Your task to perform on an android device: Open calendar and show me the second week of next month Image 0: 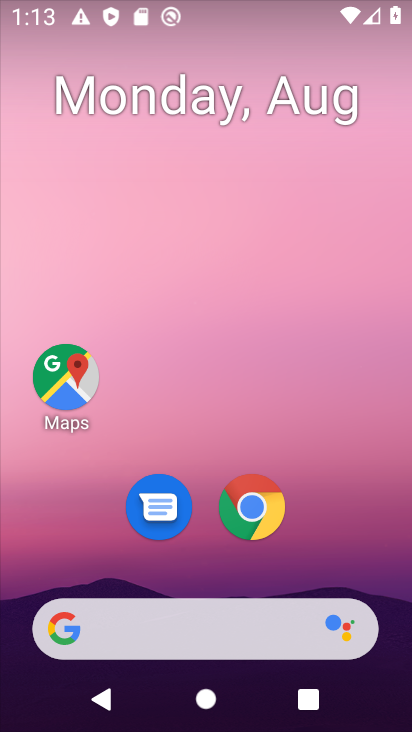
Step 0: press home button
Your task to perform on an android device: Open calendar and show me the second week of next month Image 1: 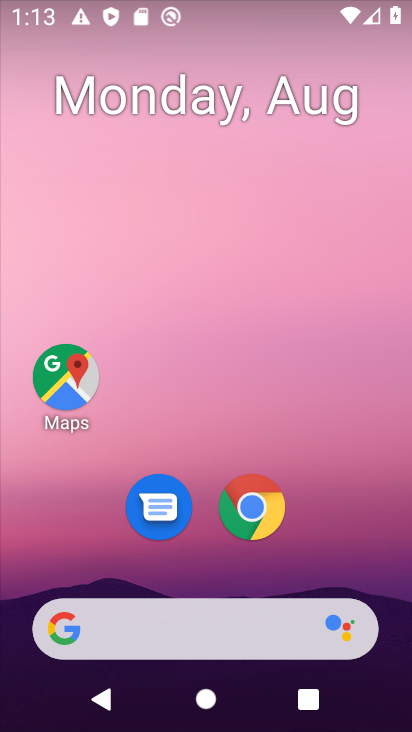
Step 1: drag from (224, 569) to (245, 54)
Your task to perform on an android device: Open calendar and show me the second week of next month Image 2: 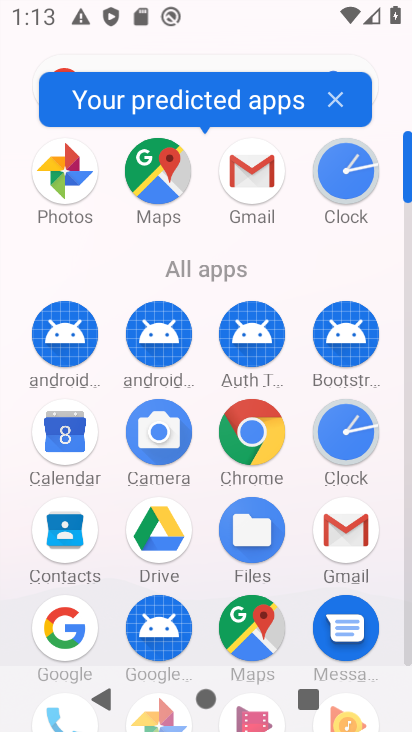
Step 2: click (44, 430)
Your task to perform on an android device: Open calendar and show me the second week of next month Image 3: 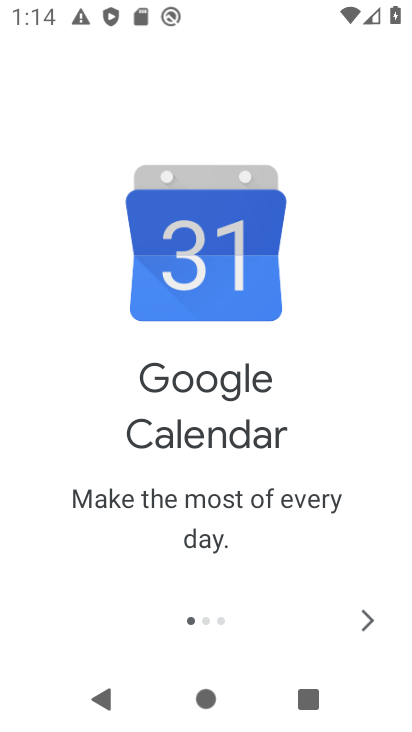
Step 3: click (366, 623)
Your task to perform on an android device: Open calendar and show me the second week of next month Image 4: 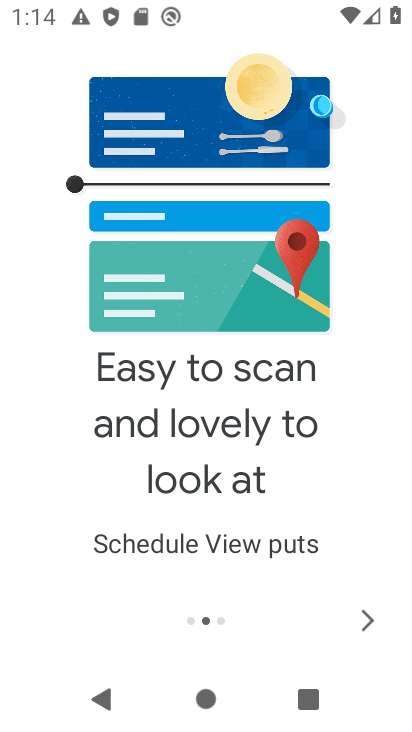
Step 4: click (362, 612)
Your task to perform on an android device: Open calendar and show me the second week of next month Image 5: 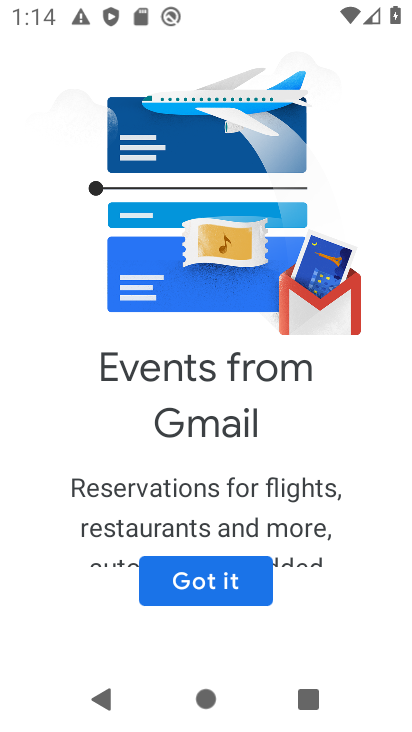
Step 5: click (218, 583)
Your task to perform on an android device: Open calendar and show me the second week of next month Image 6: 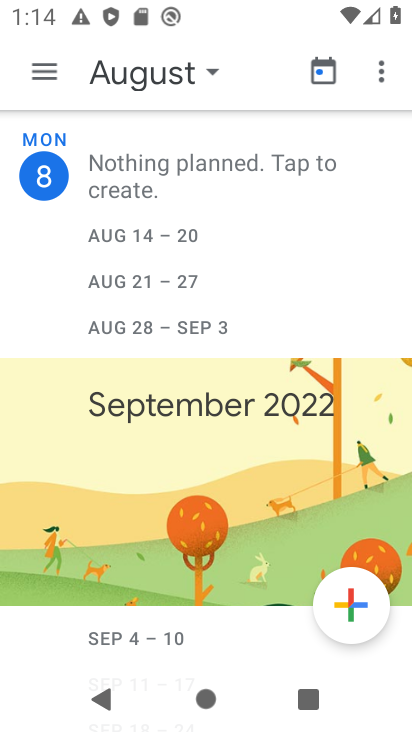
Step 6: click (219, 72)
Your task to perform on an android device: Open calendar and show me the second week of next month Image 7: 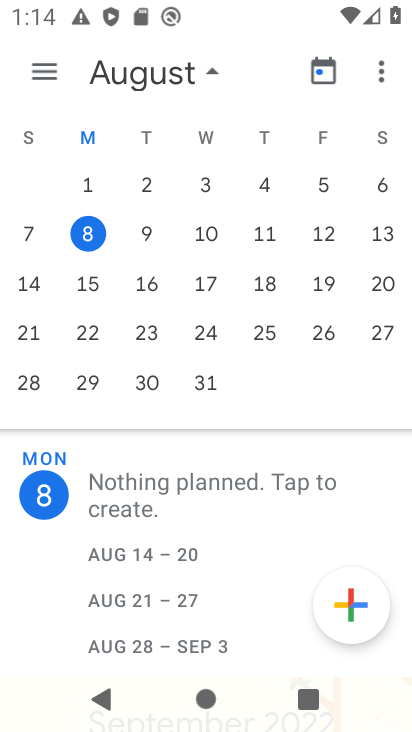
Step 7: drag from (383, 250) to (0, 278)
Your task to perform on an android device: Open calendar and show me the second week of next month Image 8: 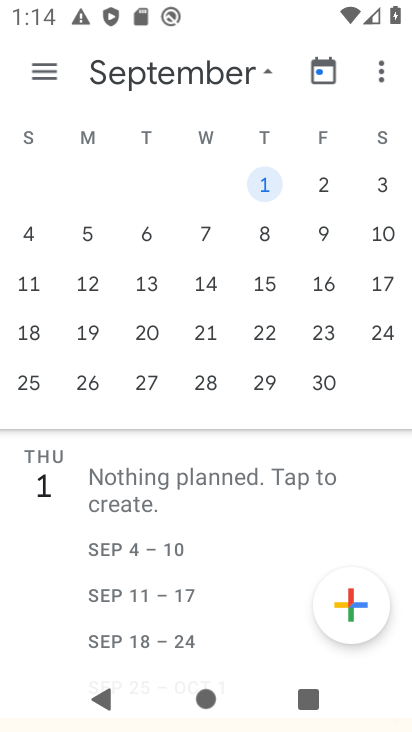
Step 8: click (24, 286)
Your task to perform on an android device: Open calendar and show me the second week of next month Image 9: 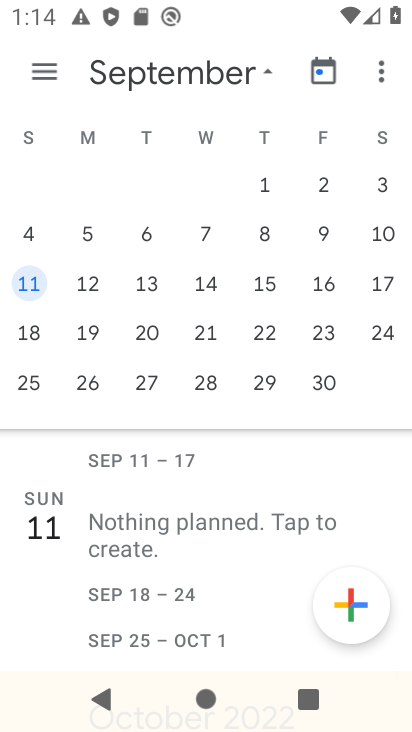
Step 9: click (51, 76)
Your task to perform on an android device: Open calendar and show me the second week of next month Image 10: 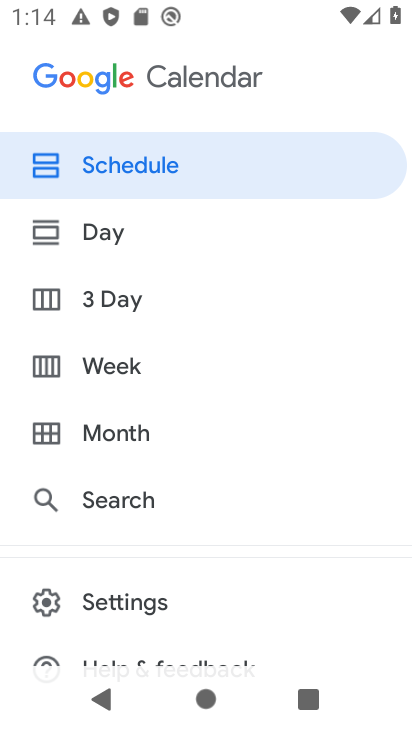
Step 10: click (80, 361)
Your task to perform on an android device: Open calendar and show me the second week of next month Image 11: 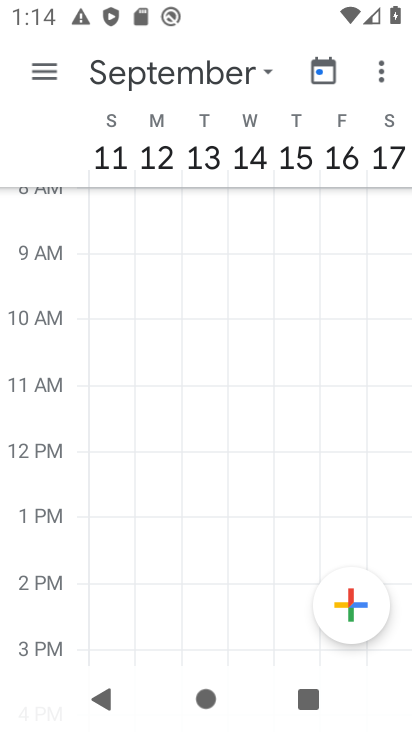
Step 11: click (115, 149)
Your task to perform on an android device: Open calendar and show me the second week of next month Image 12: 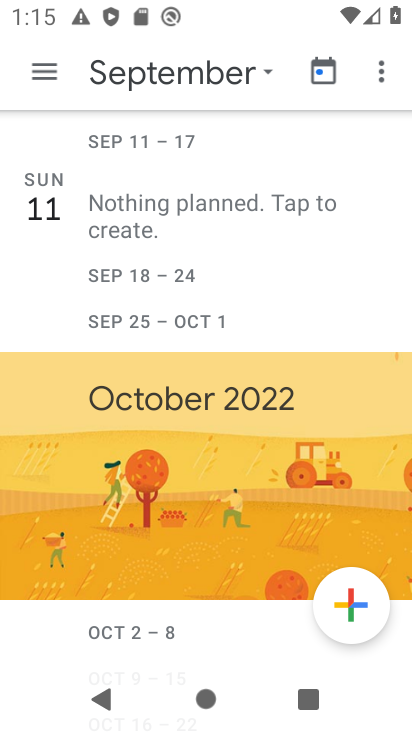
Step 12: click (71, 204)
Your task to perform on an android device: Open calendar and show me the second week of next month Image 13: 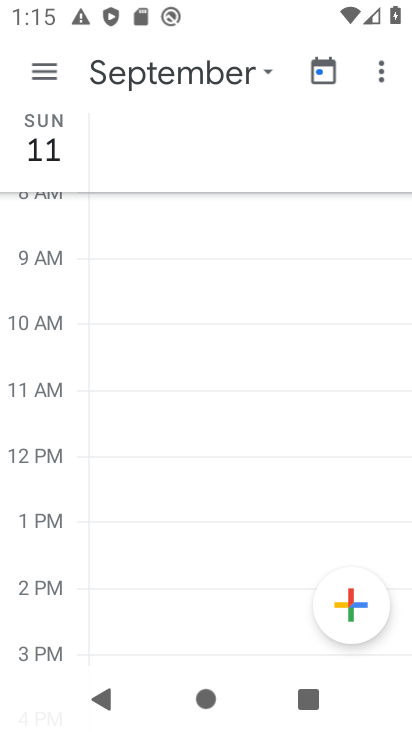
Step 13: click (71, 204)
Your task to perform on an android device: Open calendar and show me the second week of next month Image 14: 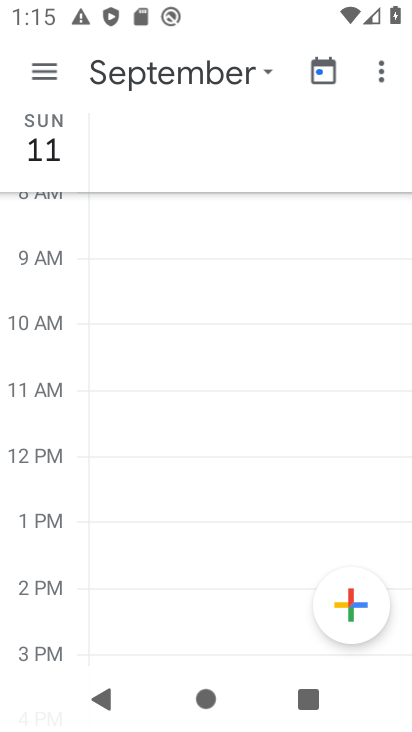
Step 14: click (71, 169)
Your task to perform on an android device: Open calendar and show me the second week of next month Image 15: 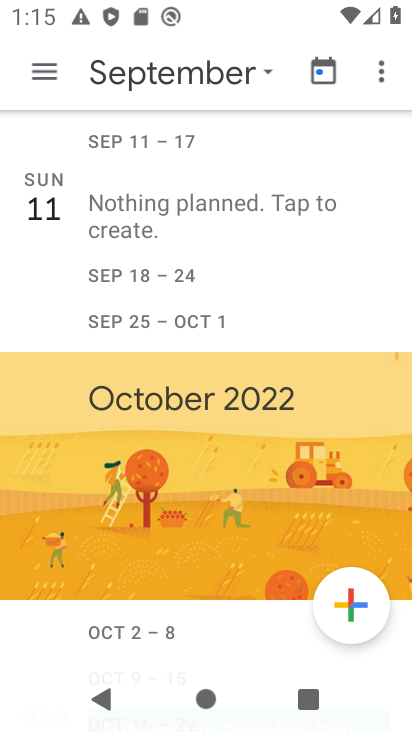
Step 15: task complete